Your task to perform on an android device: Go to Amazon Image 0: 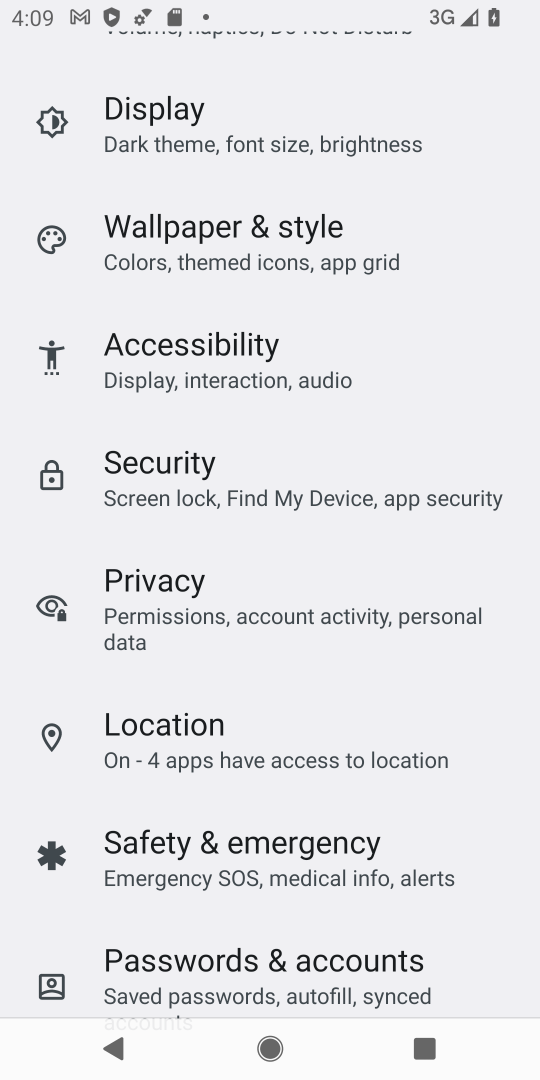
Step 0: press home button
Your task to perform on an android device: Go to Amazon Image 1: 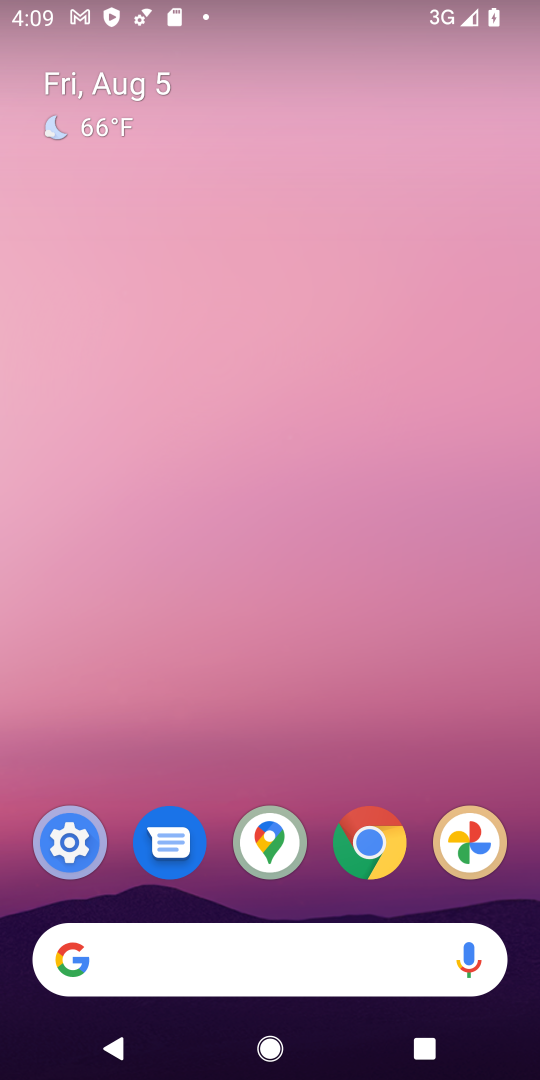
Step 1: click (382, 862)
Your task to perform on an android device: Go to Amazon Image 2: 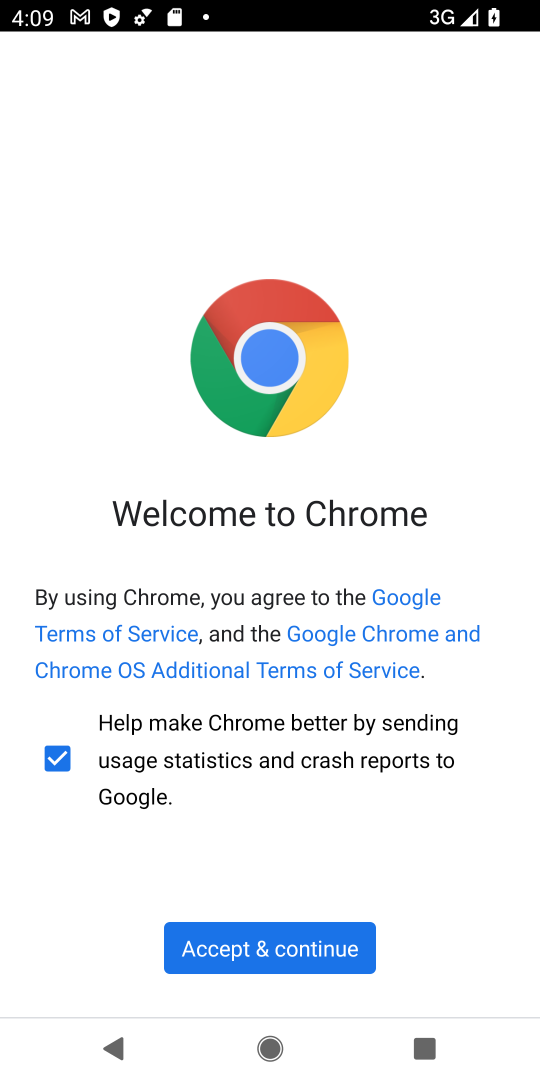
Step 2: click (345, 966)
Your task to perform on an android device: Go to Amazon Image 3: 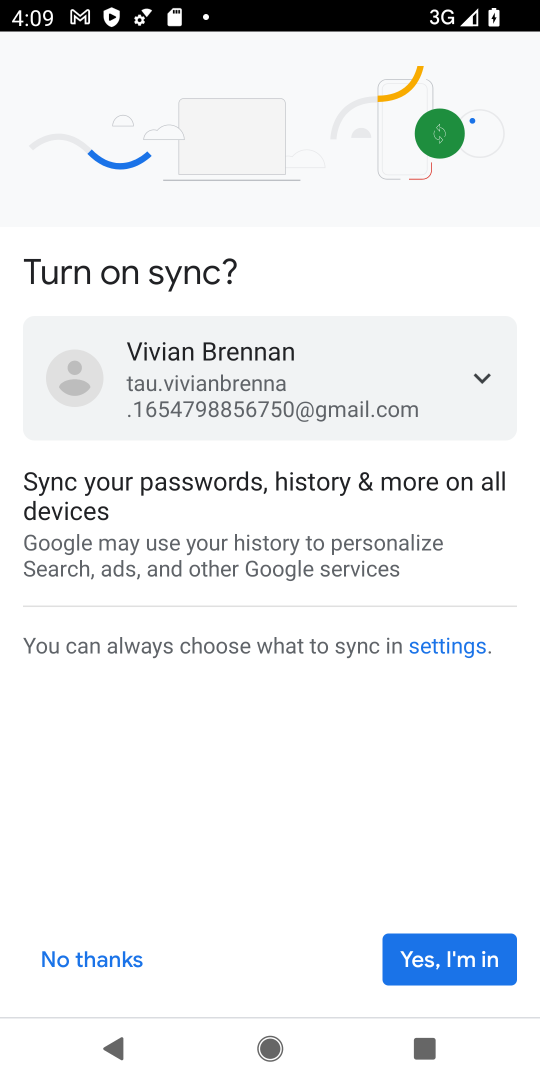
Step 3: click (117, 965)
Your task to perform on an android device: Go to Amazon Image 4: 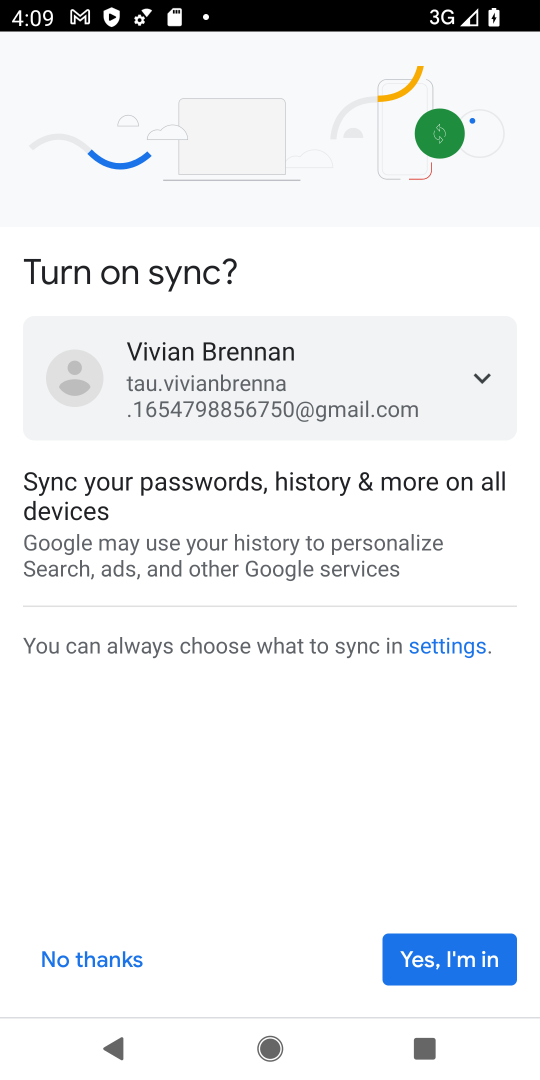
Step 4: click (424, 974)
Your task to perform on an android device: Go to Amazon Image 5: 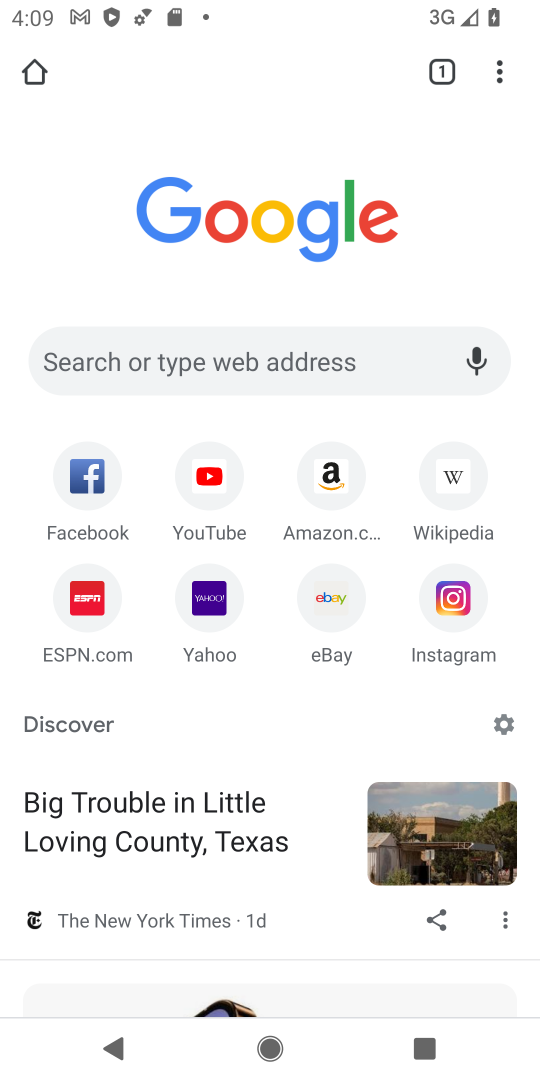
Step 5: click (339, 483)
Your task to perform on an android device: Go to Amazon Image 6: 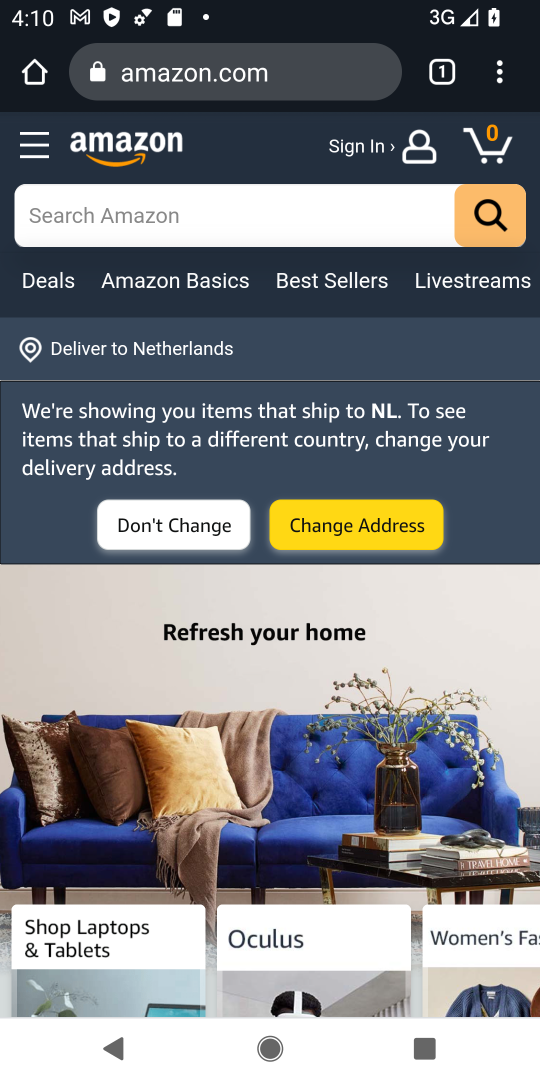
Step 6: task complete